Your task to perform on an android device: Open the web browser Image 0: 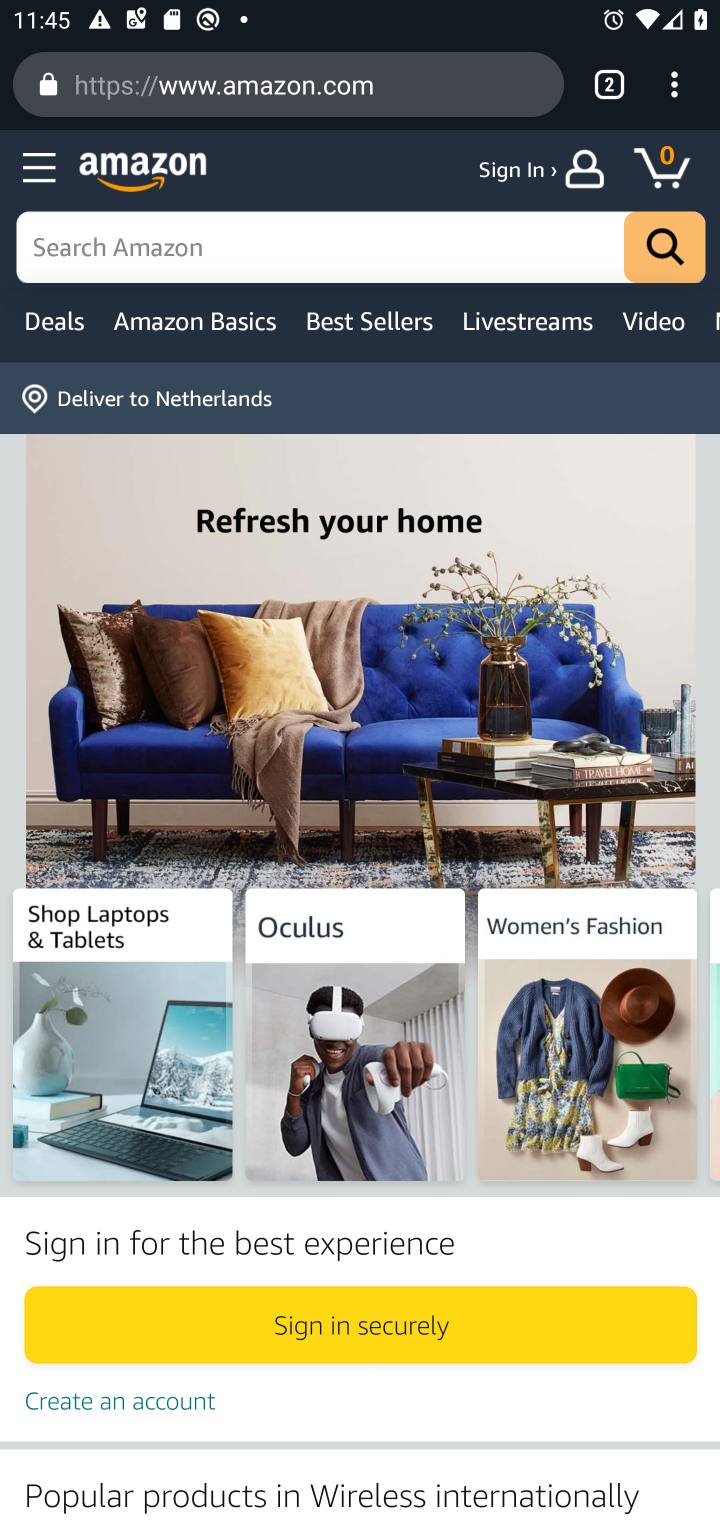
Step 0: task complete